Your task to perform on an android device: turn off priority inbox in the gmail app Image 0: 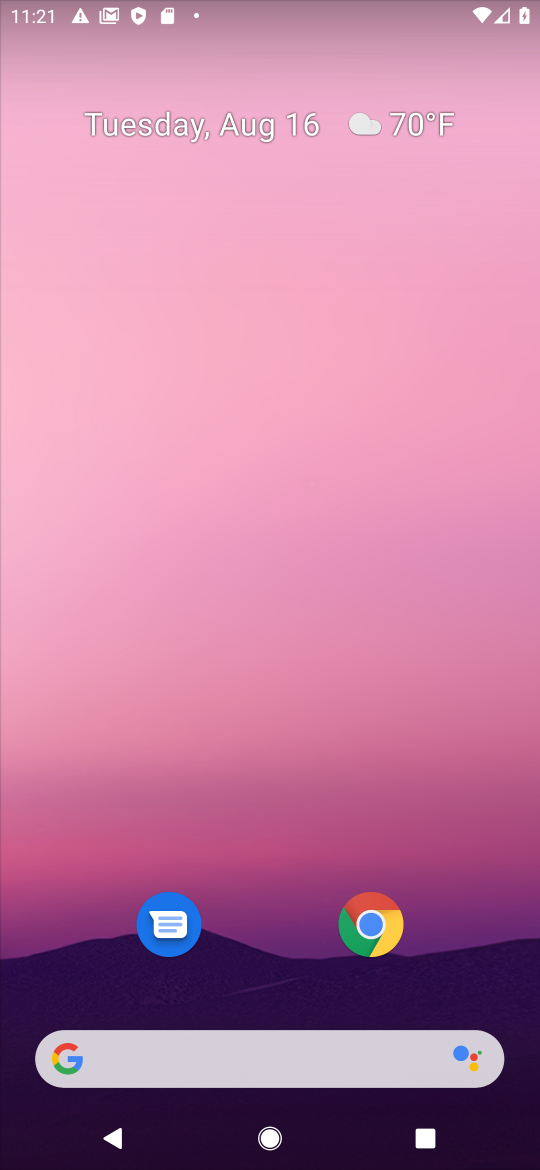
Step 0: drag from (285, 988) to (218, 278)
Your task to perform on an android device: turn off priority inbox in the gmail app Image 1: 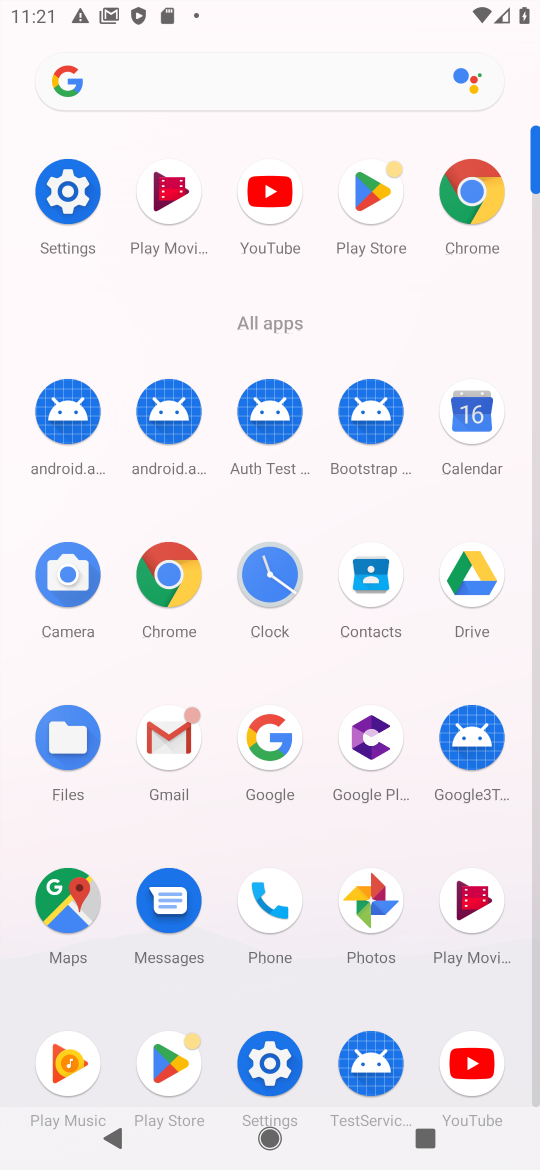
Step 1: click (181, 766)
Your task to perform on an android device: turn off priority inbox in the gmail app Image 2: 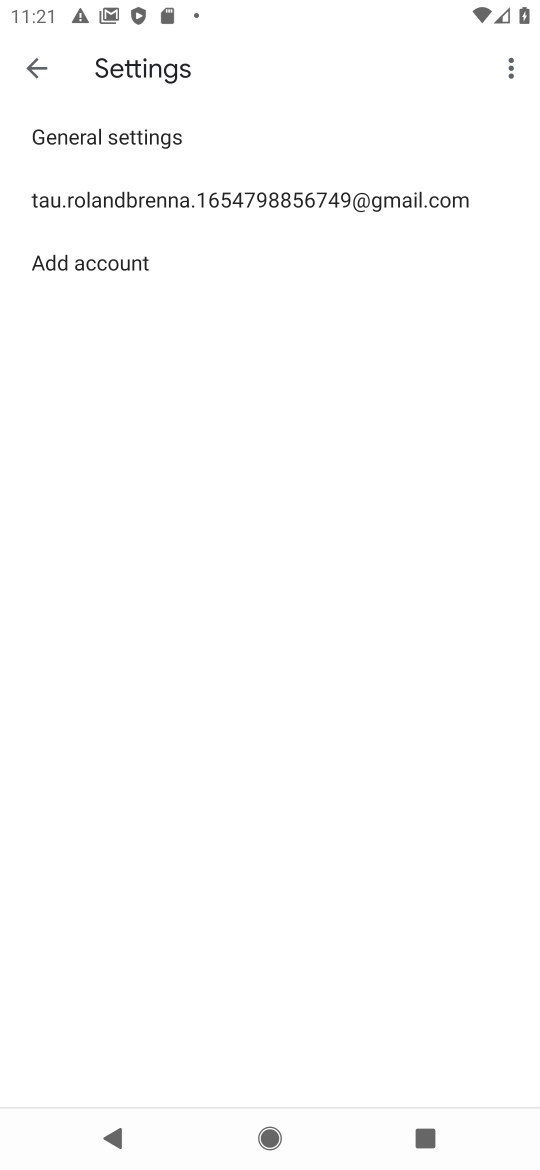
Step 2: click (266, 213)
Your task to perform on an android device: turn off priority inbox in the gmail app Image 3: 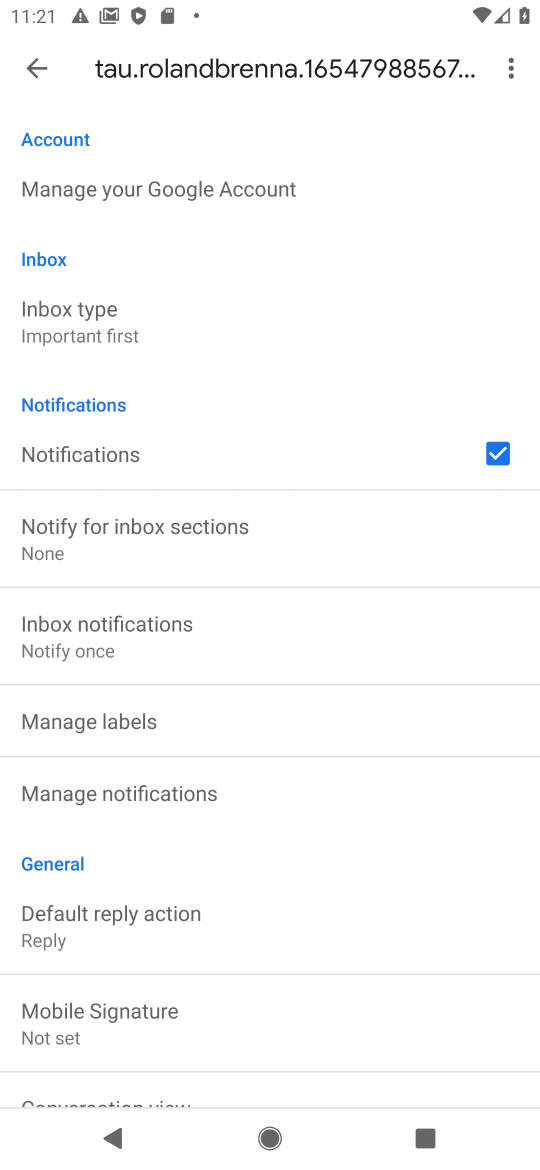
Step 3: click (153, 326)
Your task to perform on an android device: turn off priority inbox in the gmail app Image 4: 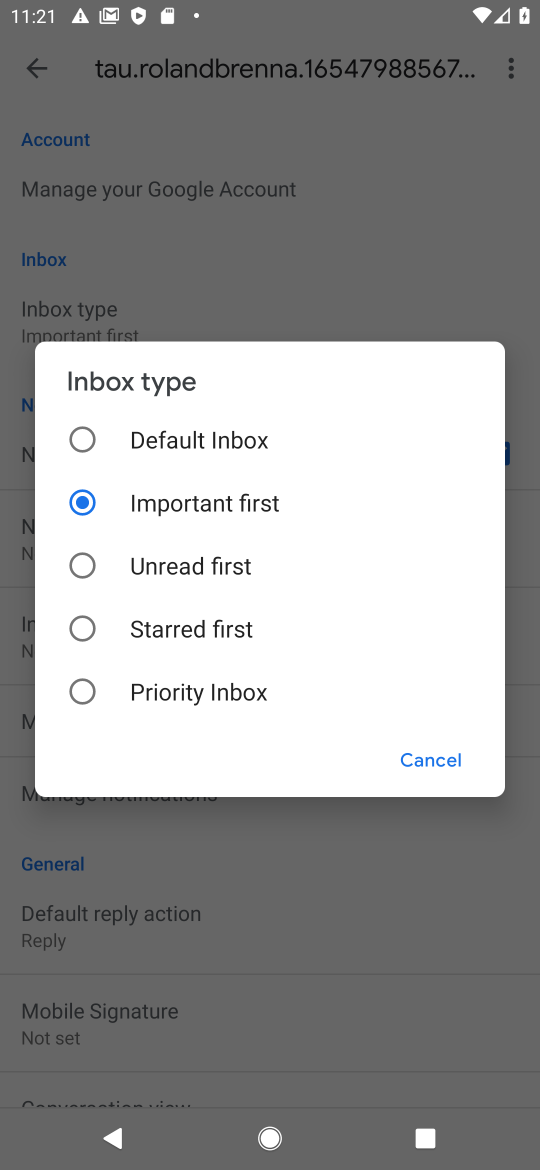
Step 4: task complete